Your task to perform on an android device: check battery use Image 0: 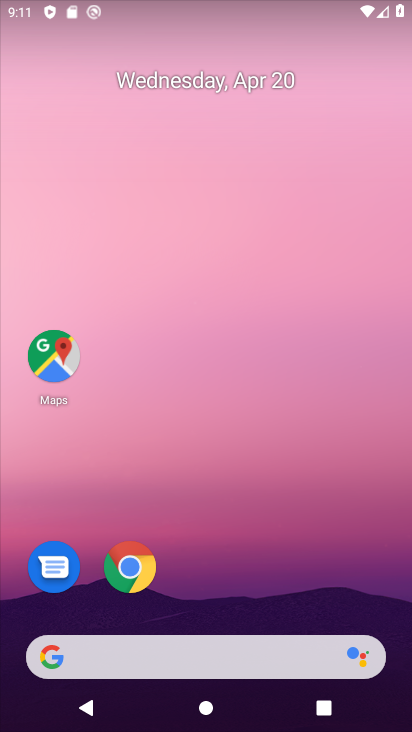
Step 0: click (289, 292)
Your task to perform on an android device: check battery use Image 1: 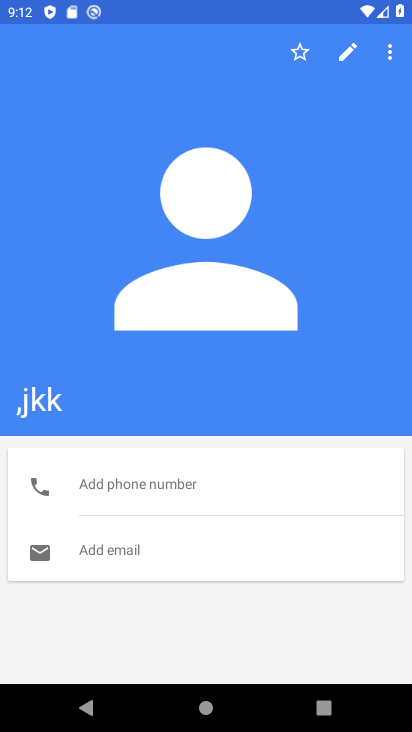
Step 1: press home button
Your task to perform on an android device: check battery use Image 2: 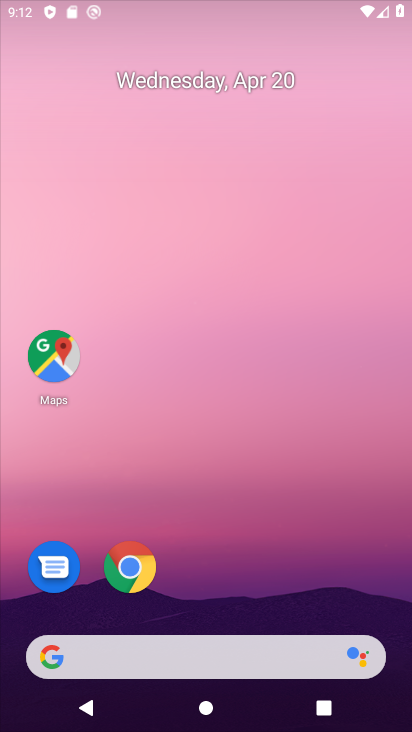
Step 2: drag from (212, 697) to (241, 232)
Your task to perform on an android device: check battery use Image 3: 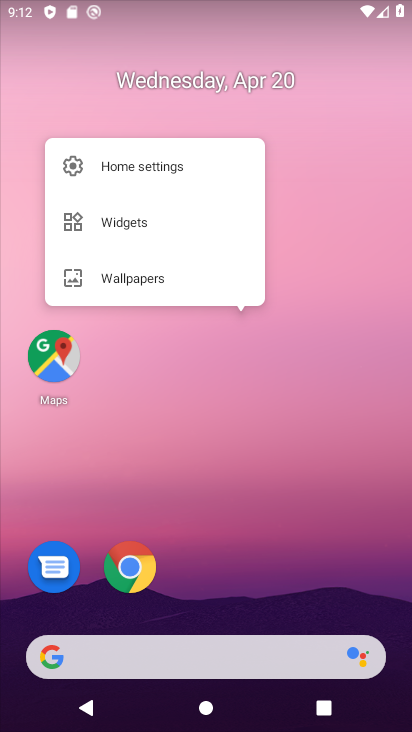
Step 3: drag from (210, 562) to (259, 235)
Your task to perform on an android device: check battery use Image 4: 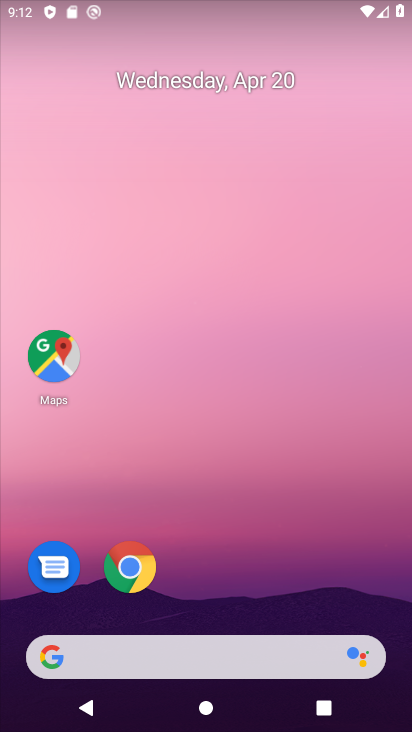
Step 4: drag from (278, 502) to (273, 117)
Your task to perform on an android device: check battery use Image 5: 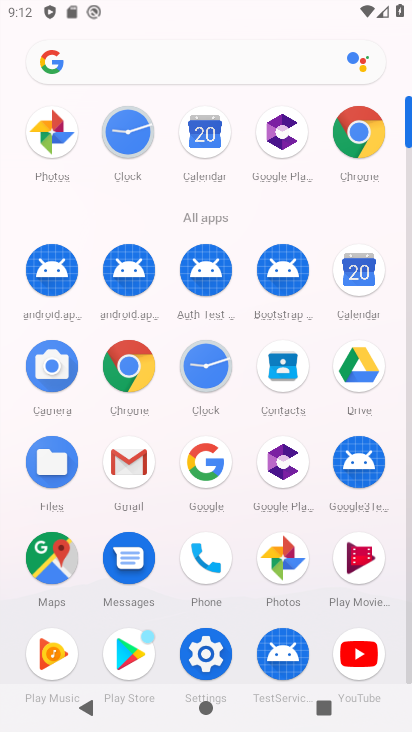
Step 5: click (208, 654)
Your task to perform on an android device: check battery use Image 6: 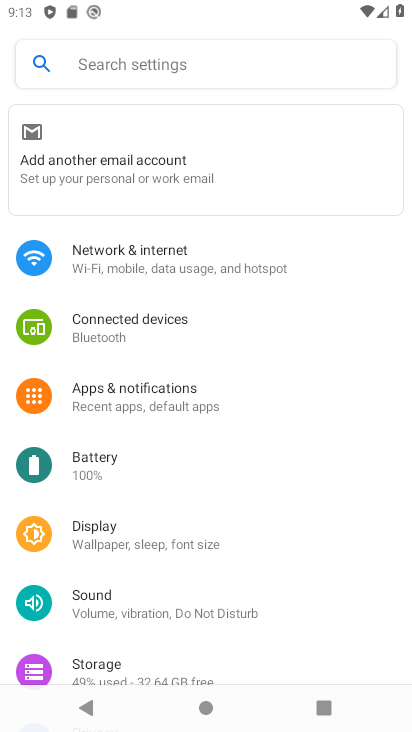
Step 6: click (141, 463)
Your task to perform on an android device: check battery use Image 7: 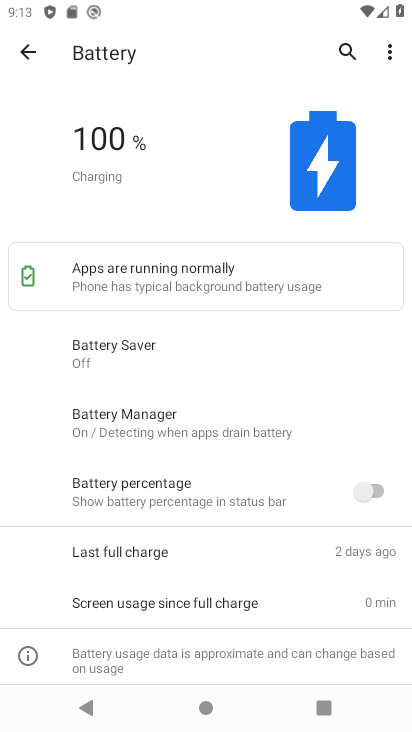
Step 7: task complete